Your task to perform on an android device: Open Google Maps Image 0: 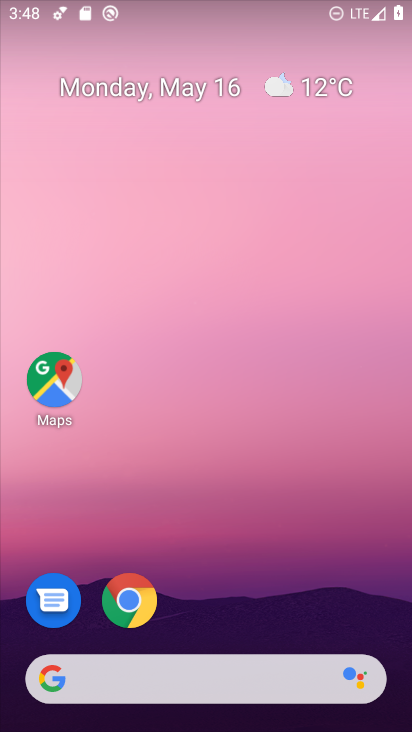
Step 0: click (64, 396)
Your task to perform on an android device: Open Google Maps Image 1: 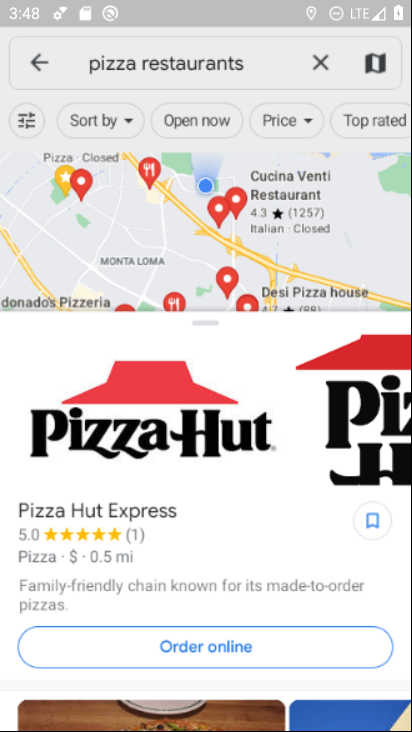
Step 1: task complete